Your task to perform on an android device: Do I have any events this weekend? Image 0: 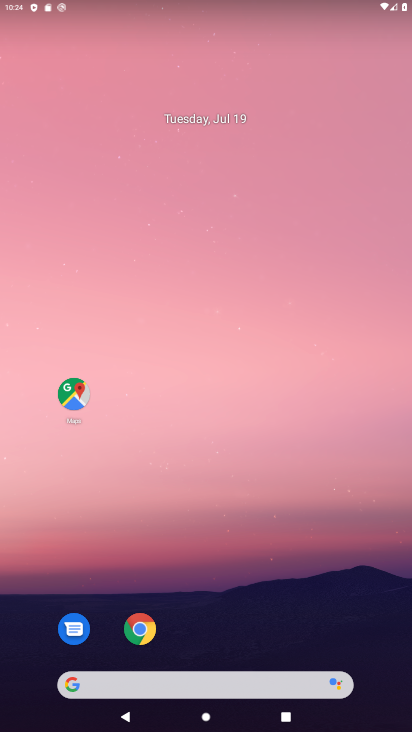
Step 0: drag from (244, 576) to (159, 191)
Your task to perform on an android device: Do I have any events this weekend? Image 1: 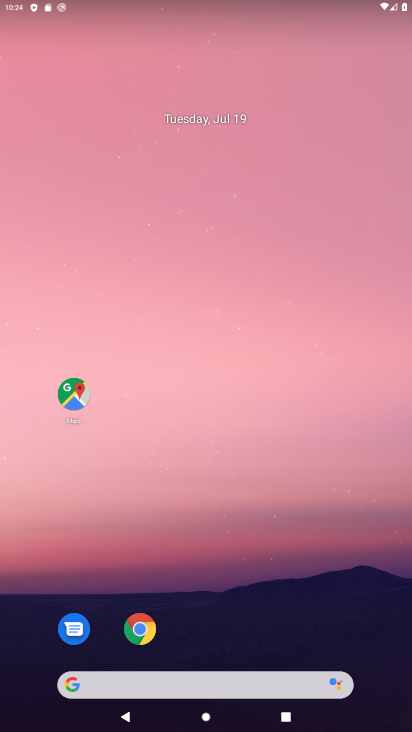
Step 1: drag from (230, 488) to (208, 227)
Your task to perform on an android device: Do I have any events this weekend? Image 2: 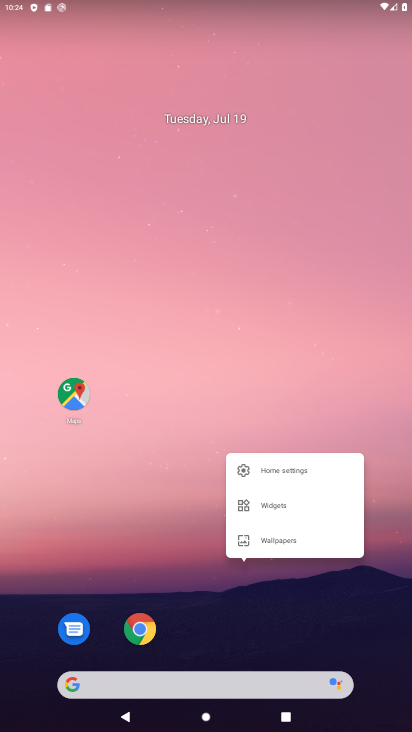
Step 2: drag from (256, 594) to (216, 227)
Your task to perform on an android device: Do I have any events this weekend? Image 3: 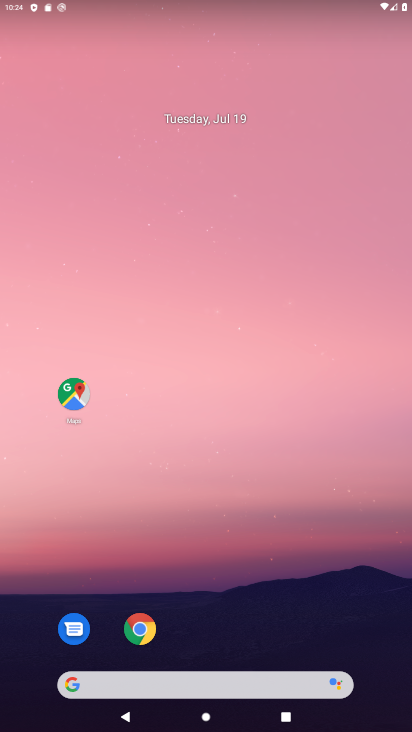
Step 3: drag from (212, 503) to (188, 474)
Your task to perform on an android device: Do I have any events this weekend? Image 4: 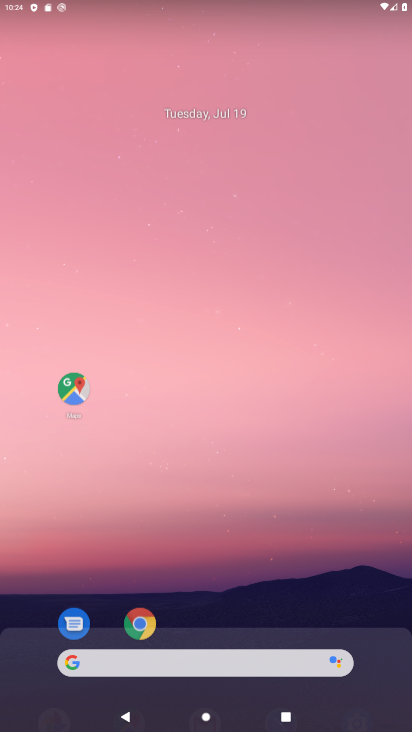
Step 4: drag from (229, 631) to (166, 88)
Your task to perform on an android device: Do I have any events this weekend? Image 5: 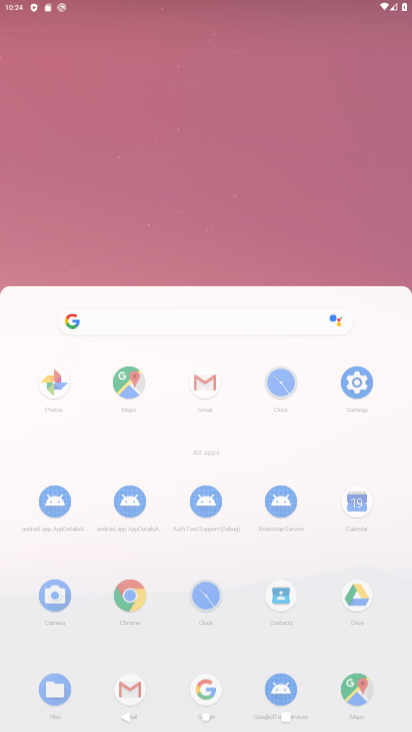
Step 5: drag from (232, 494) to (257, 80)
Your task to perform on an android device: Do I have any events this weekend? Image 6: 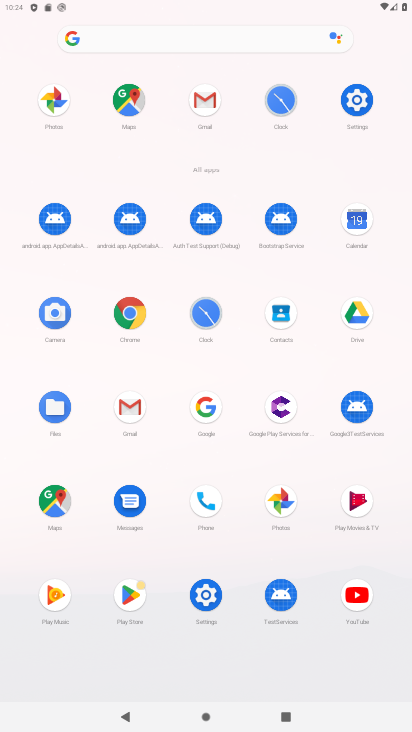
Step 6: click (353, 220)
Your task to perform on an android device: Do I have any events this weekend? Image 7: 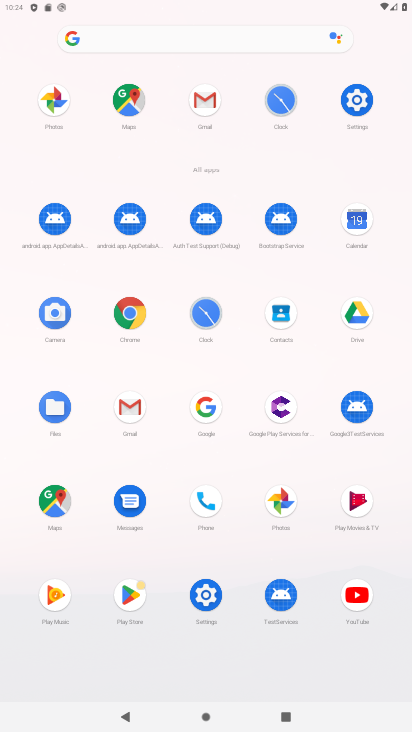
Step 7: click (353, 221)
Your task to perform on an android device: Do I have any events this weekend? Image 8: 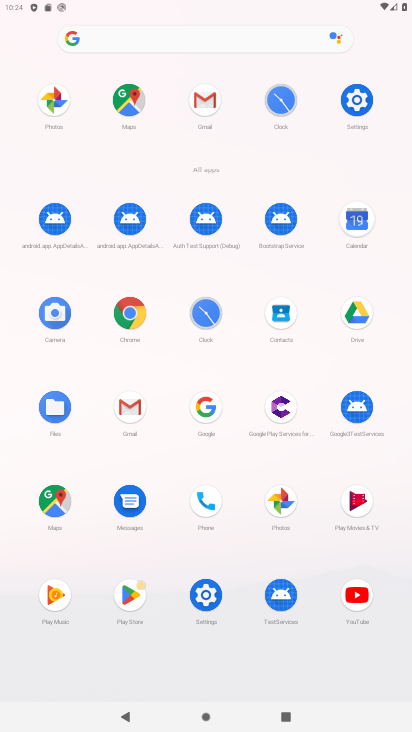
Step 8: click (355, 225)
Your task to perform on an android device: Do I have any events this weekend? Image 9: 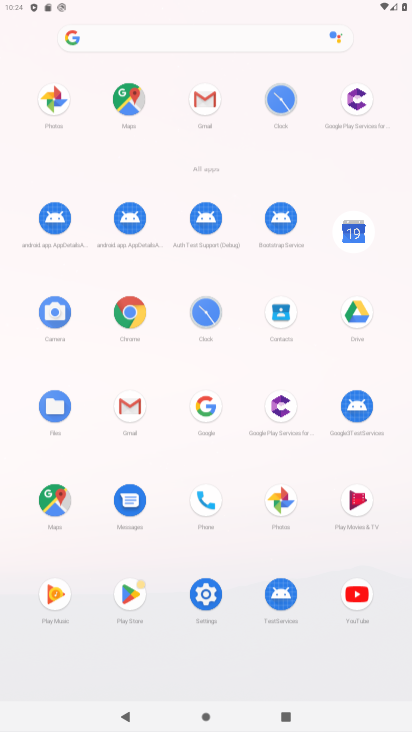
Step 9: click (359, 226)
Your task to perform on an android device: Do I have any events this weekend? Image 10: 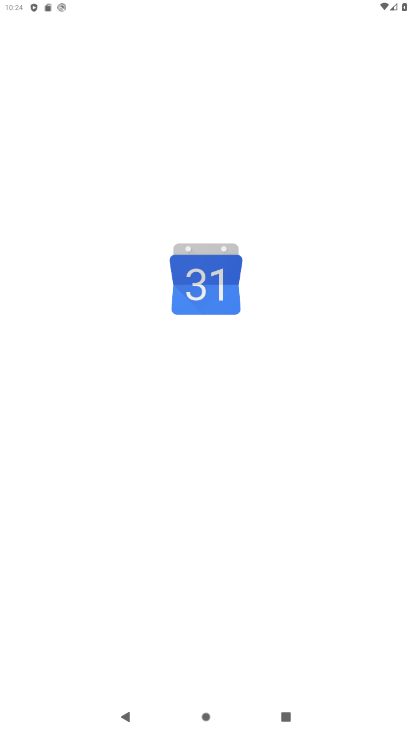
Step 10: click (360, 225)
Your task to perform on an android device: Do I have any events this weekend? Image 11: 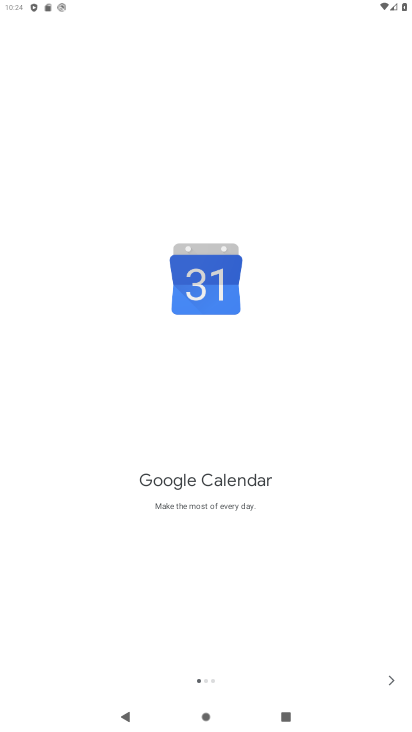
Step 11: click (390, 683)
Your task to perform on an android device: Do I have any events this weekend? Image 12: 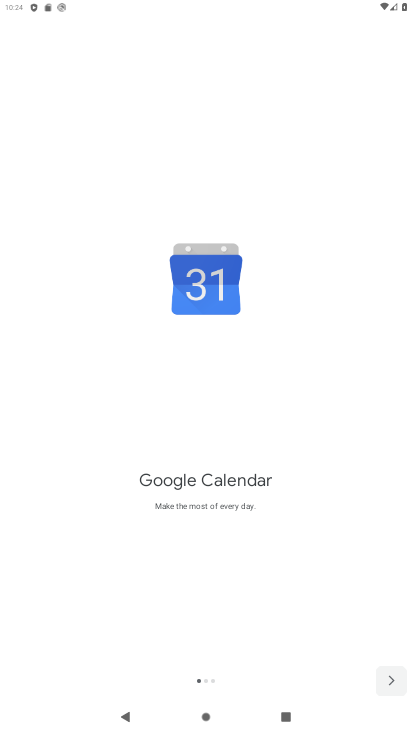
Step 12: click (389, 684)
Your task to perform on an android device: Do I have any events this weekend? Image 13: 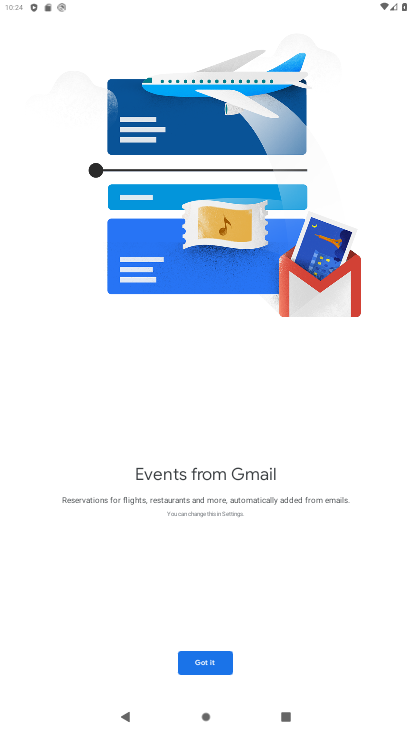
Step 13: click (200, 656)
Your task to perform on an android device: Do I have any events this weekend? Image 14: 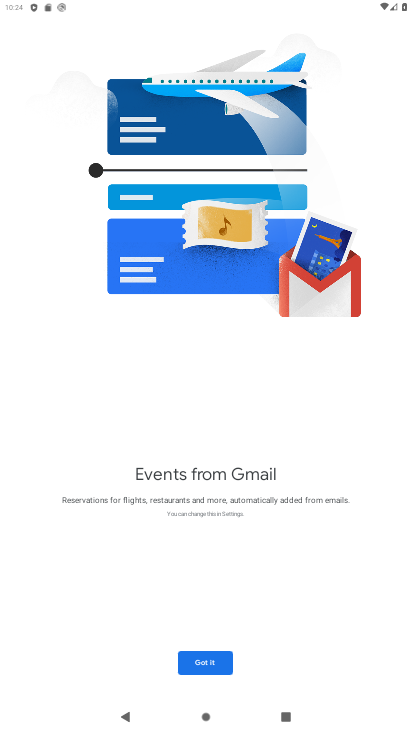
Step 14: click (202, 654)
Your task to perform on an android device: Do I have any events this weekend? Image 15: 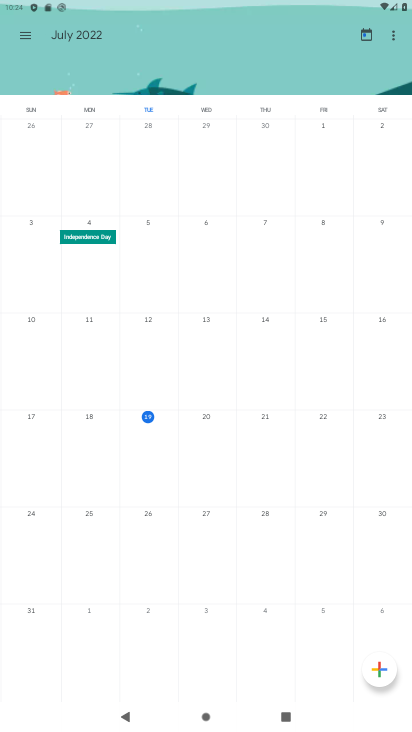
Step 15: click (377, 314)
Your task to perform on an android device: Do I have any events this weekend? Image 16: 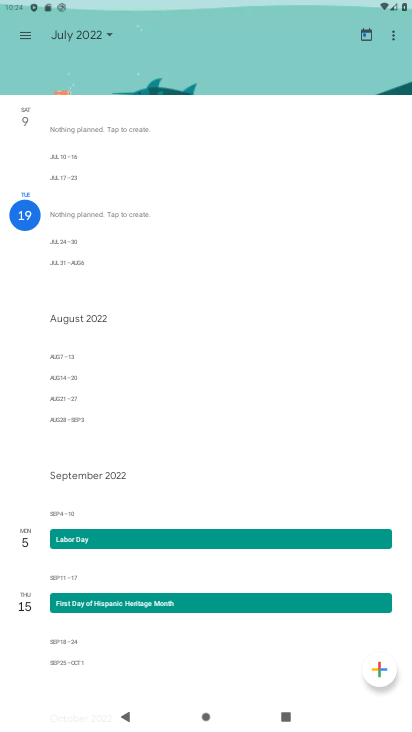
Step 16: task complete